Your task to perform on an android device: uninstall "Google Duo" Image 0: 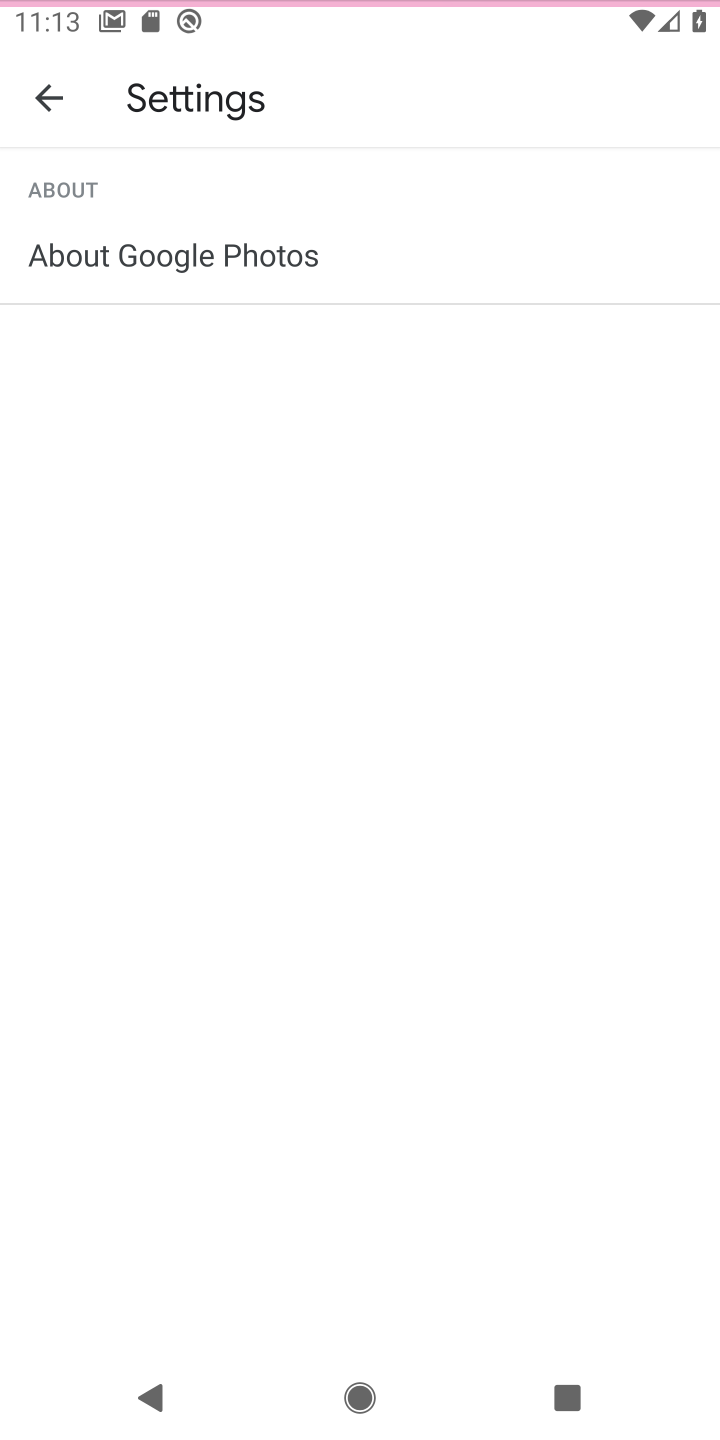
Step 0: press home button
Your task to perform on an android device: uninstall "Google Duo" Image 1: 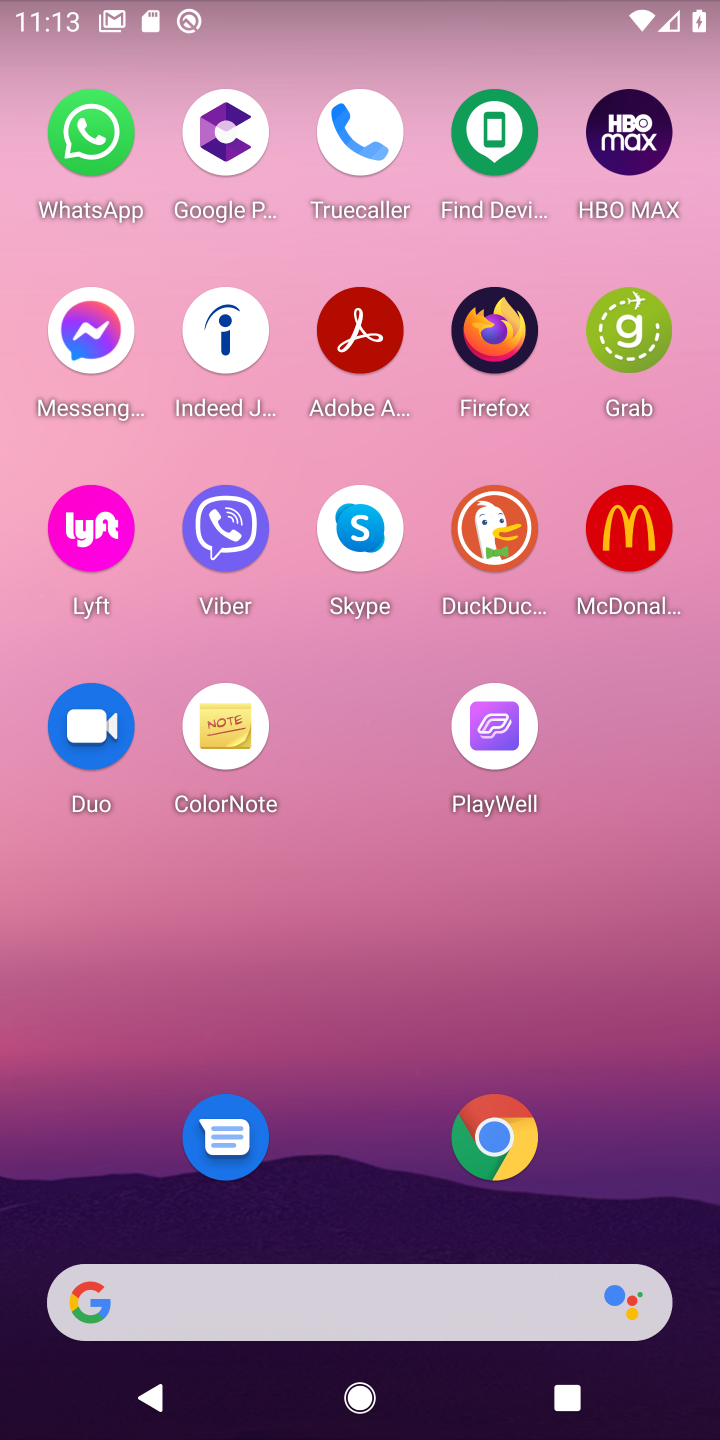
Step 1: drag from (362, 1189) to (447, 9)
Your task to perform on an android device: uninstall "Google Duo" Image 2: 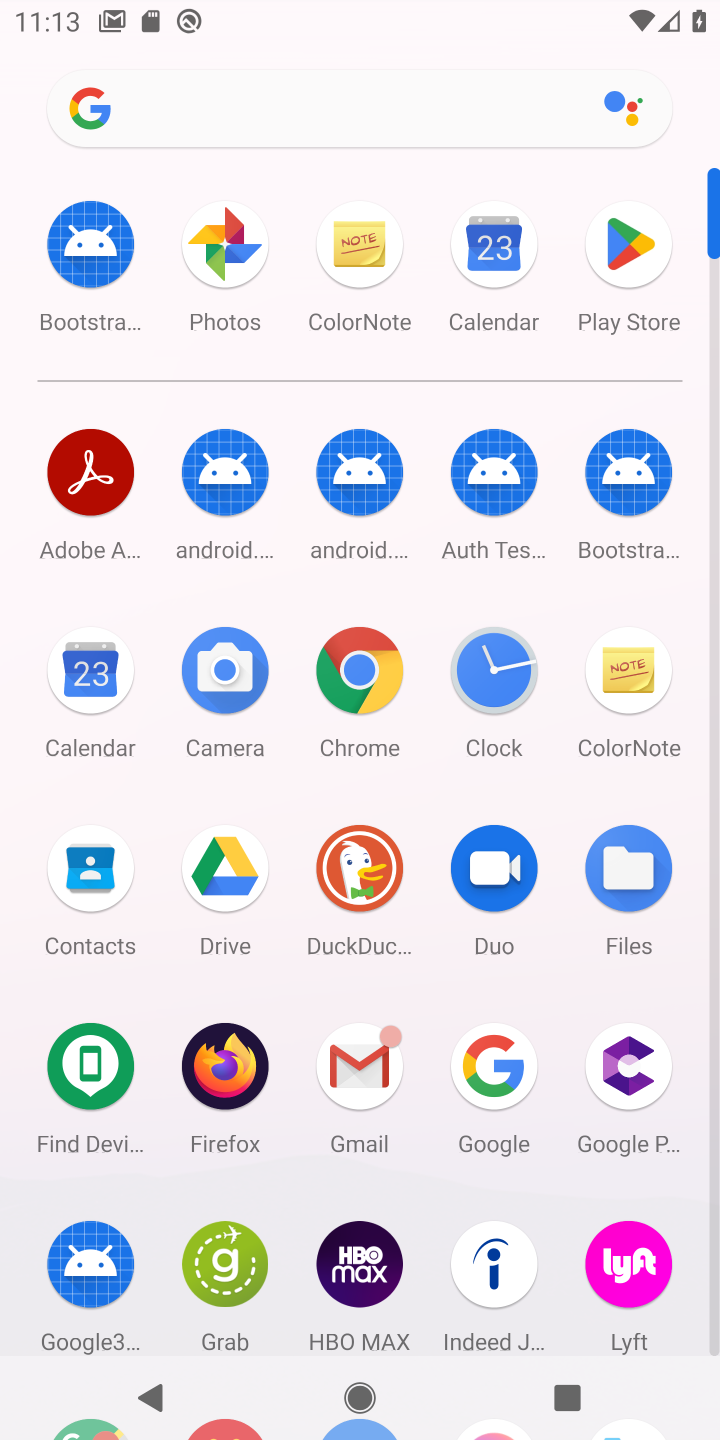
Step 2: click (637, 266)
Your task to perform on an android device: uninstall "Google Duo" Image 3: 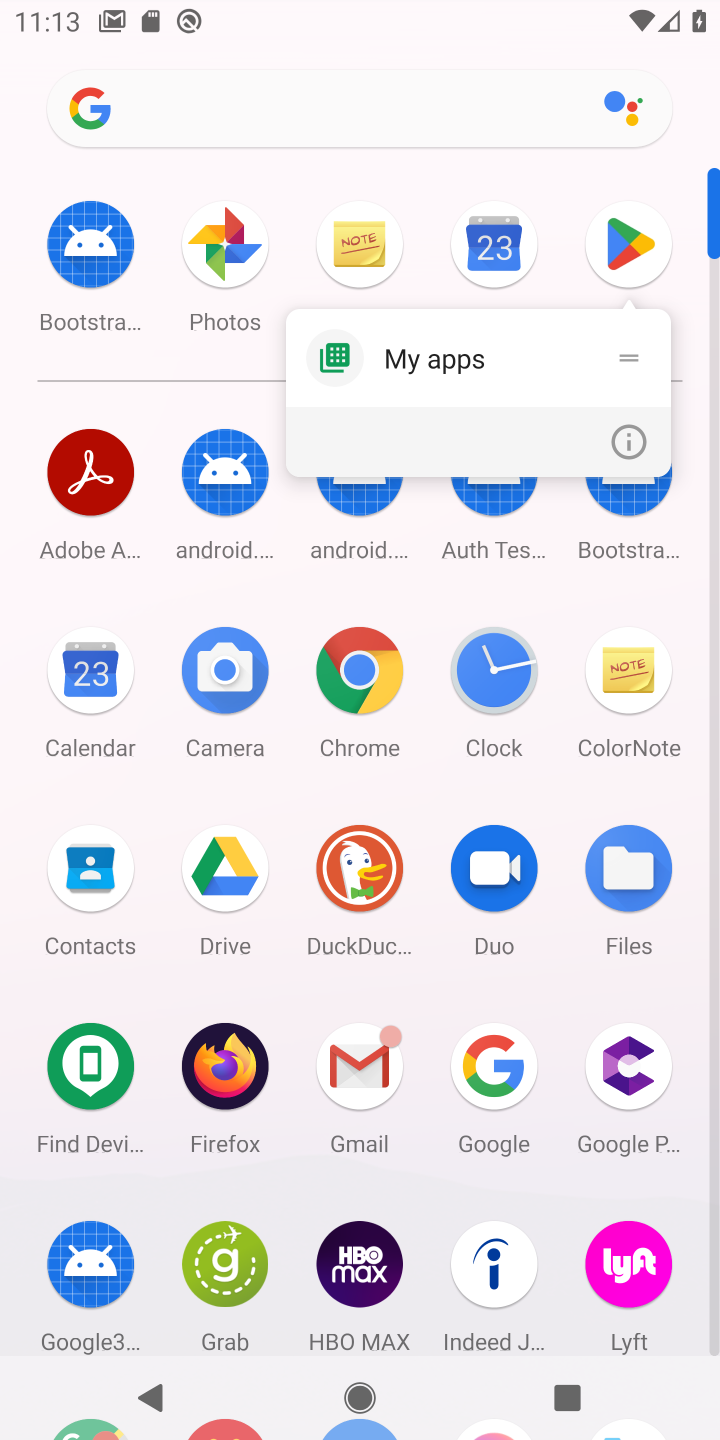
Step 3: click (644, 263)
Your task to perform on an android device: uninstall "Google Duo" Image 4: 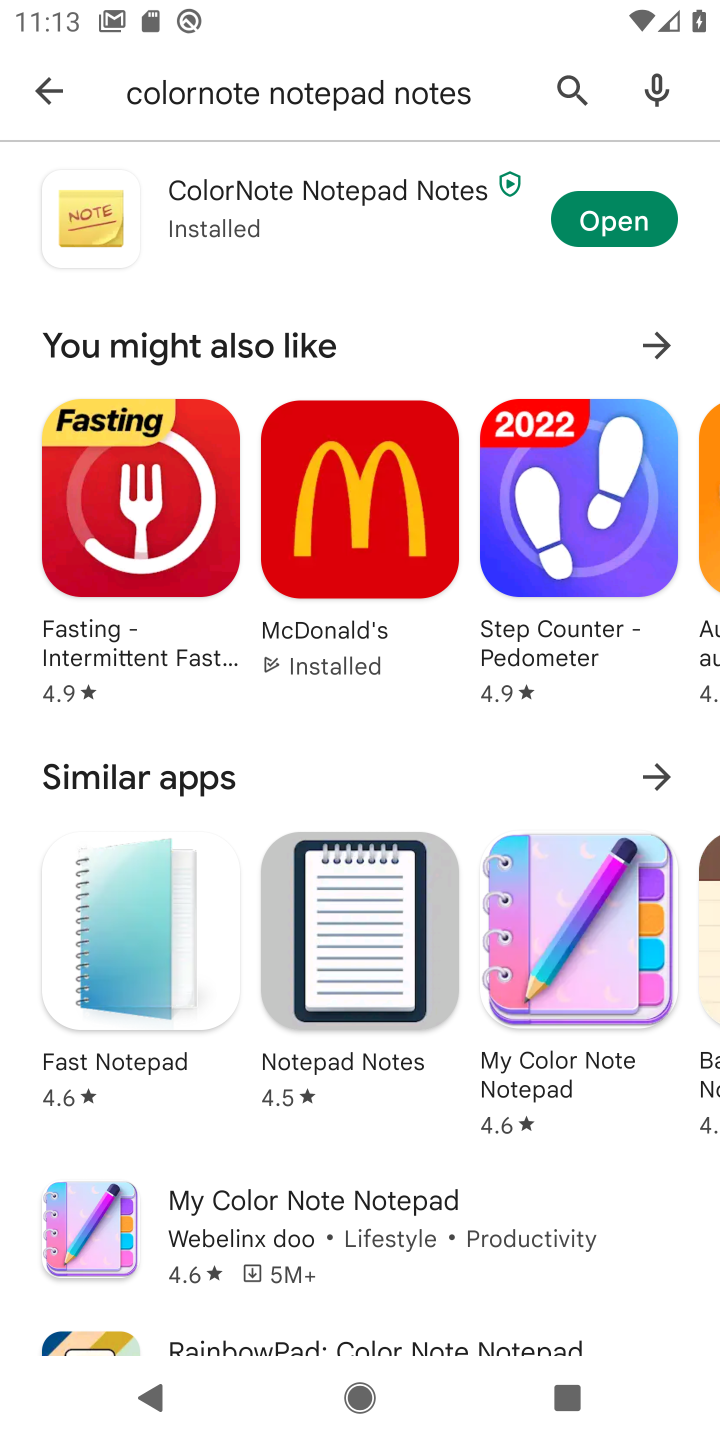
Step 4: click (286, 83)
Your task to perform on an android device: uninstall "Google Duo" Image 5: 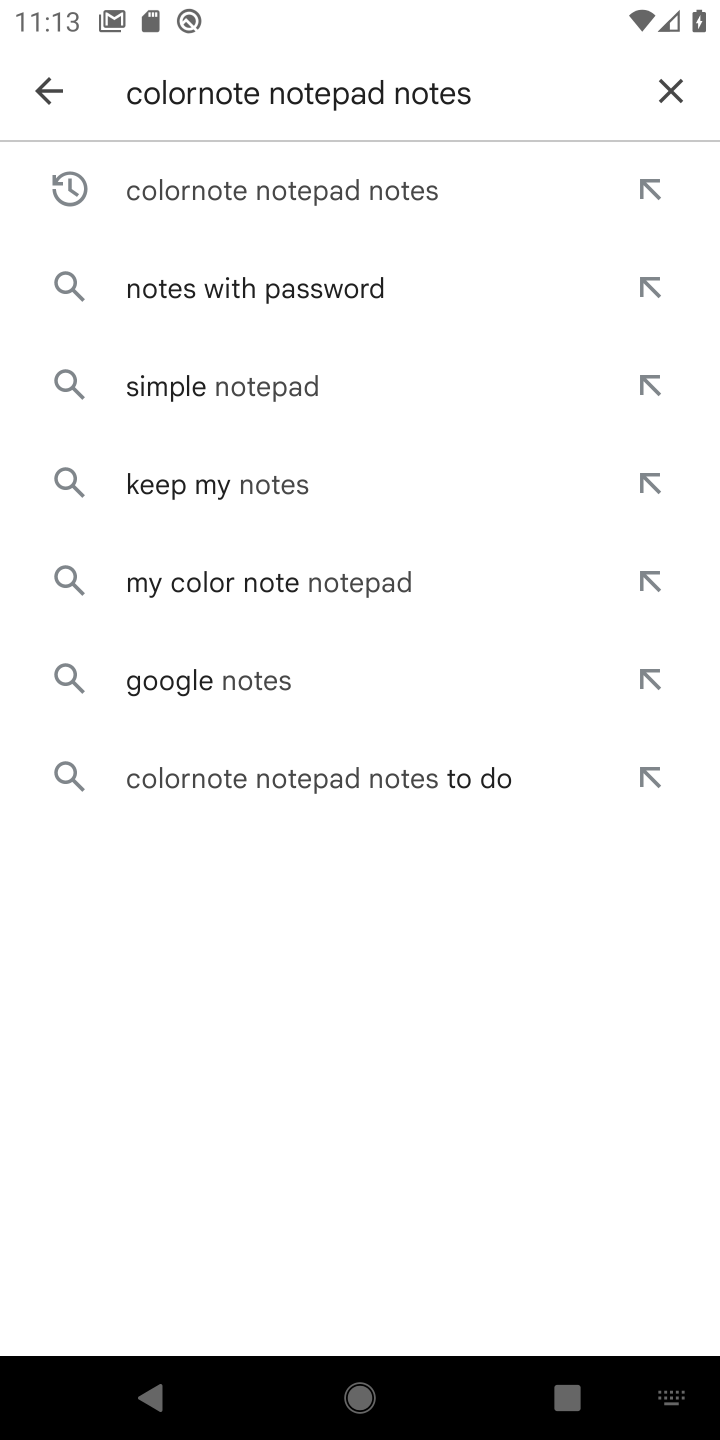
Step 5: click (662, 84)
Your task to perform on an android device: uninstall "Google Duo" Image 6: 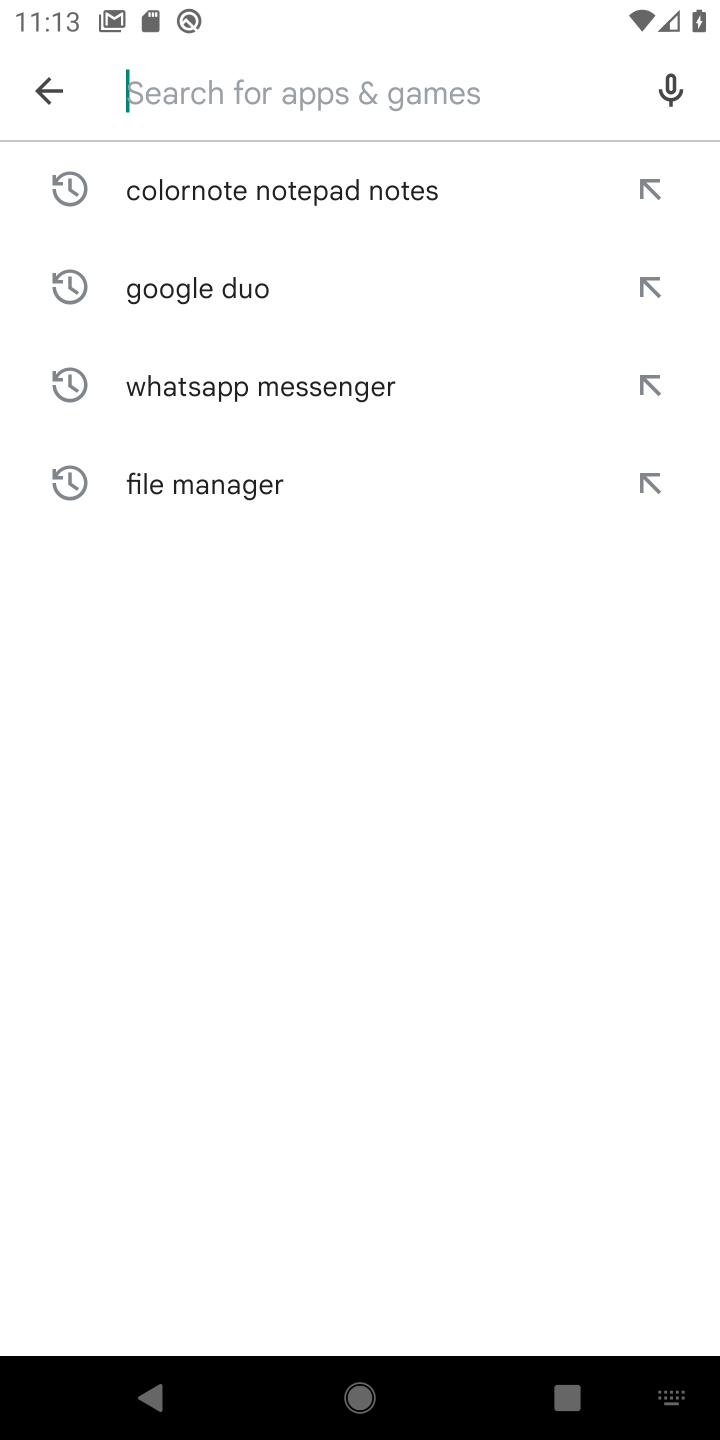
Step 6: type "google duo"
Your task to perform on an android device: uninstall "Google Duo" Image 7: 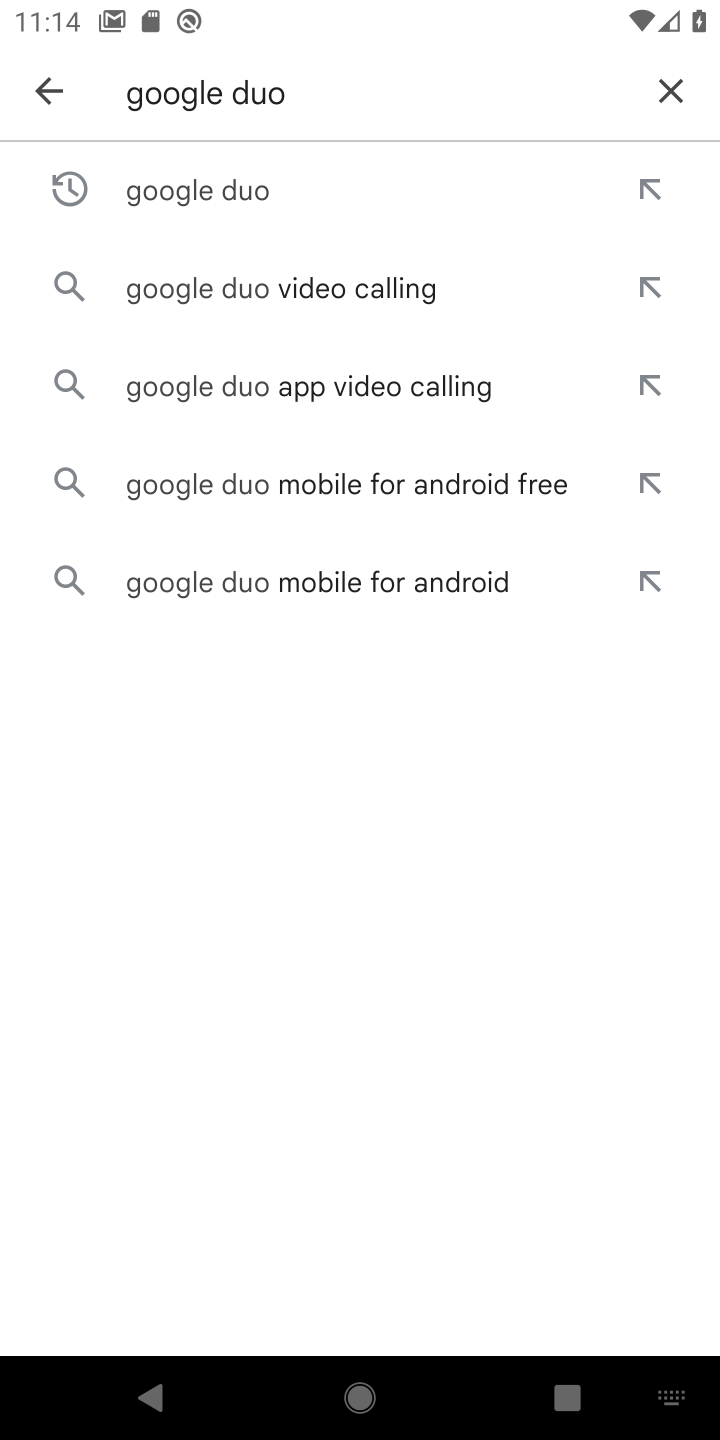
Step 7: click (273, 195)
Your task to perform on an android device: uninstall "Google Duo" Image 8: 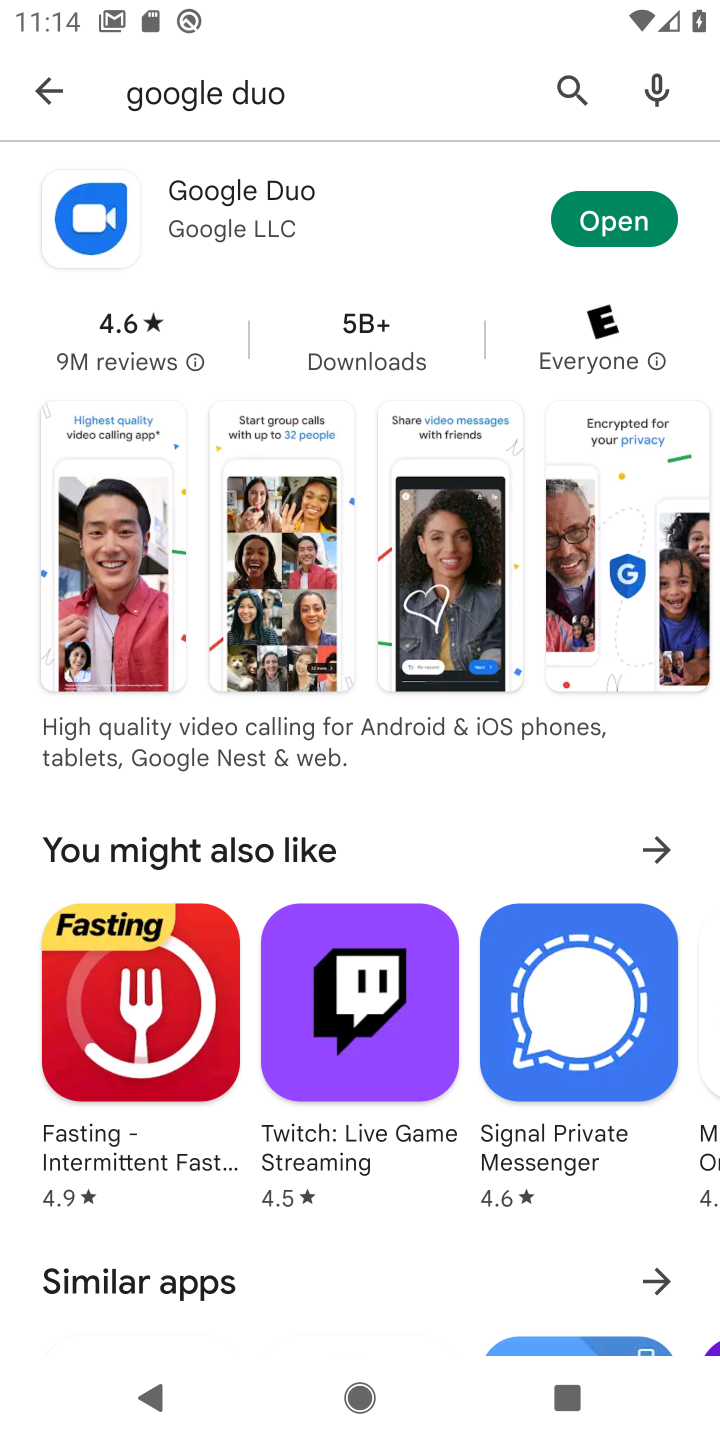
Step 8: click (183, 198)
Your task to perform on an android device: uninstall "Google Duo" Image 9: 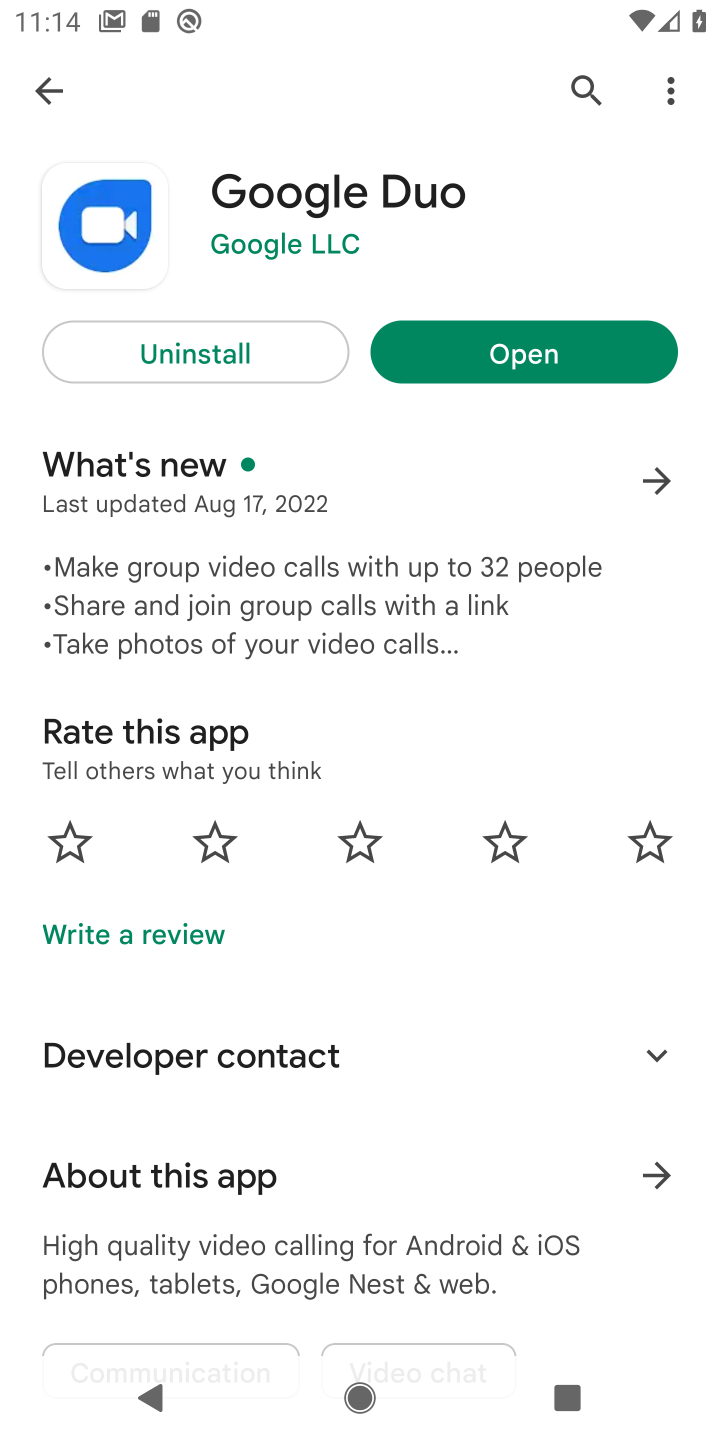
Step 9: click (214, 354)
Your task to perform on an android device: uninstall "Google Duo" Image 10: 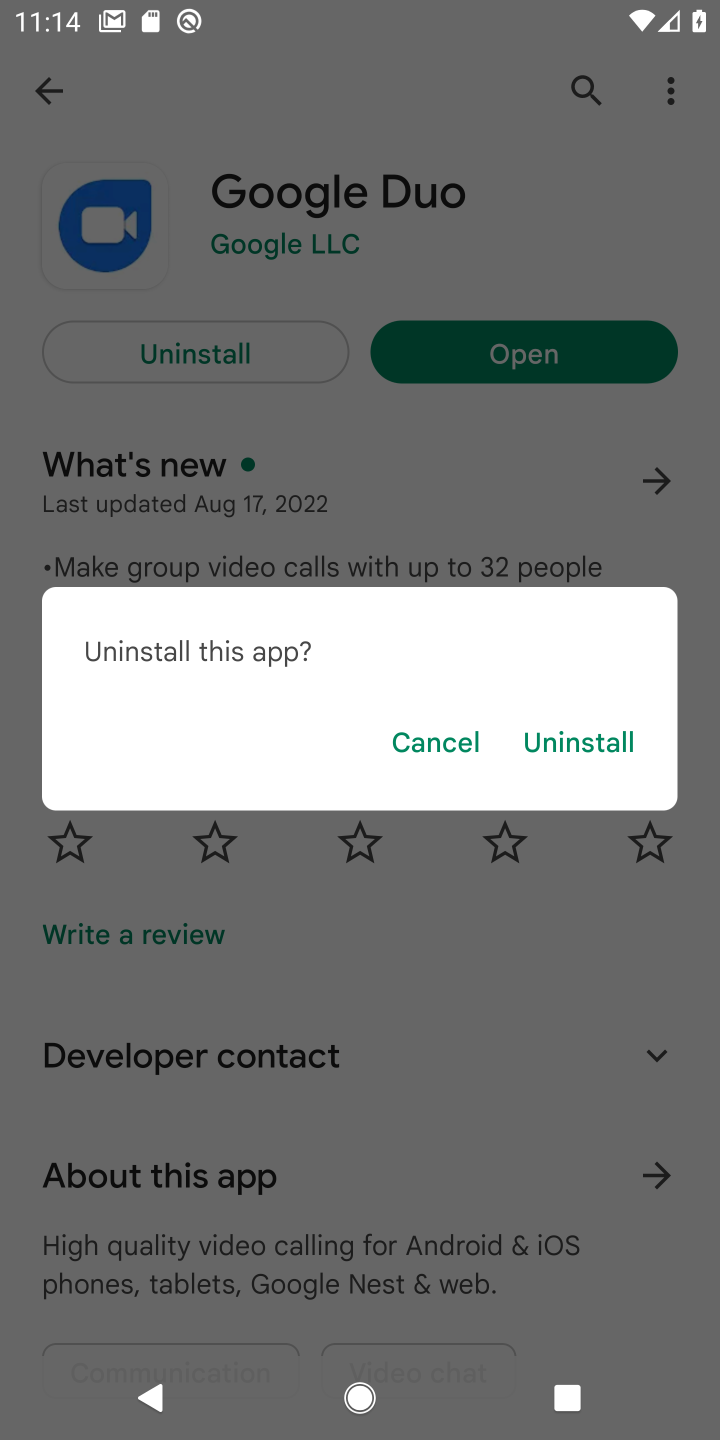
Step 10: click (616, 746)
Your task to perform on an android device: uninstall "Google Duo" Image 11: 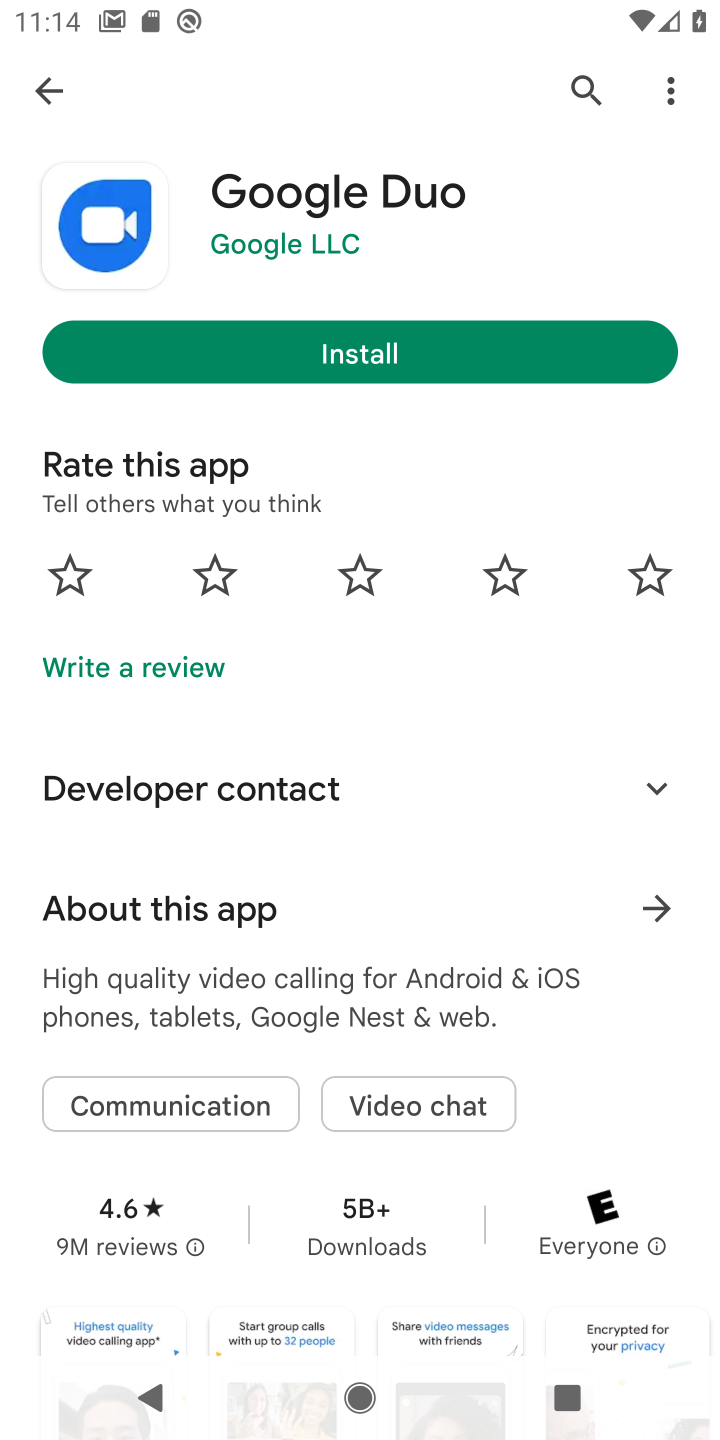
Step 11: task complete